Your task to perform on an android device: Go to location settings Image 0: 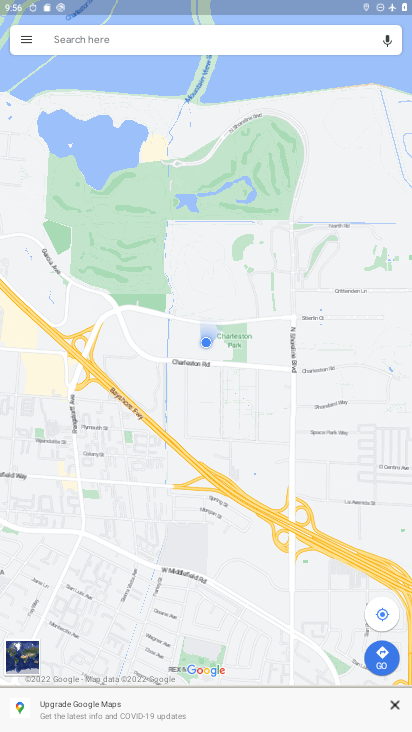
Step 0: press home button
Your task to perform on an android device: Go to location settings Image 1: 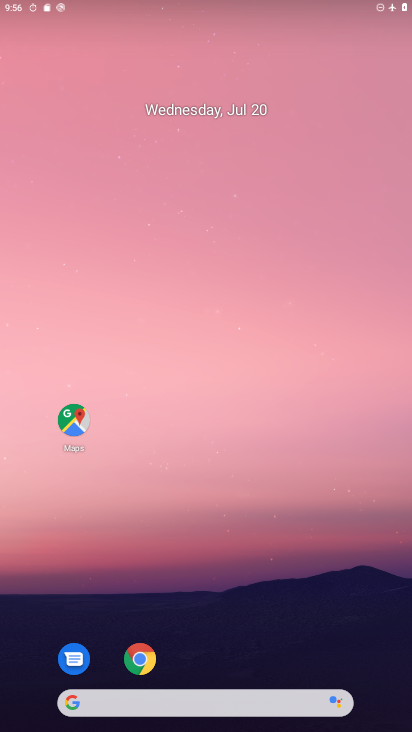
Step 1: drag from (329, 628) to (265, 77)
Your task to perform on an android device: Go to location settings Image 2: 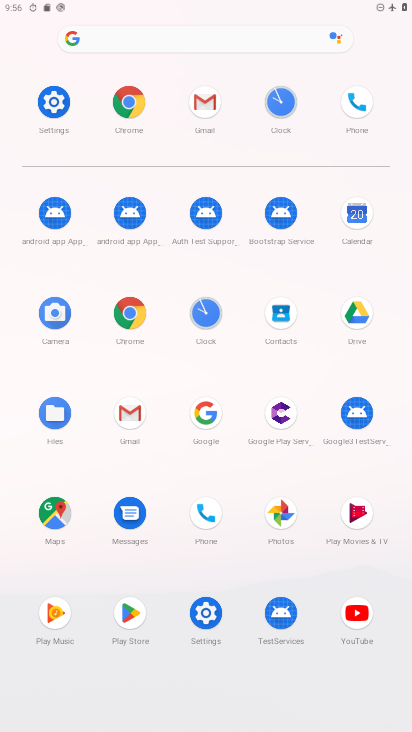
Step 2: click (49, 111)
Your task to perform on an android device: Go to location settings Image 3: 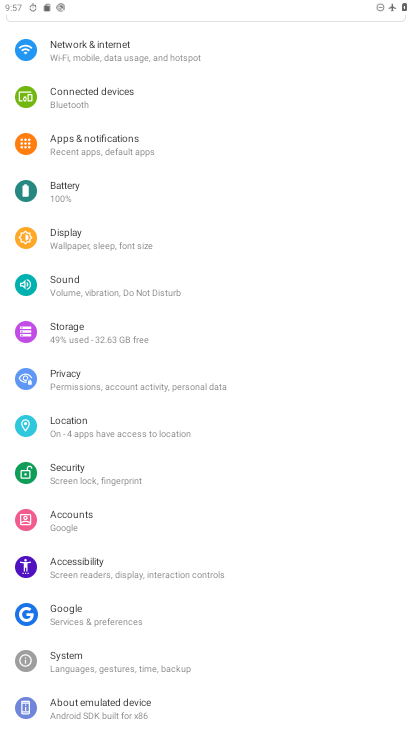
Step 3: click (77, 417)
Your task to perform on an android device: Go to location settings Image 4: 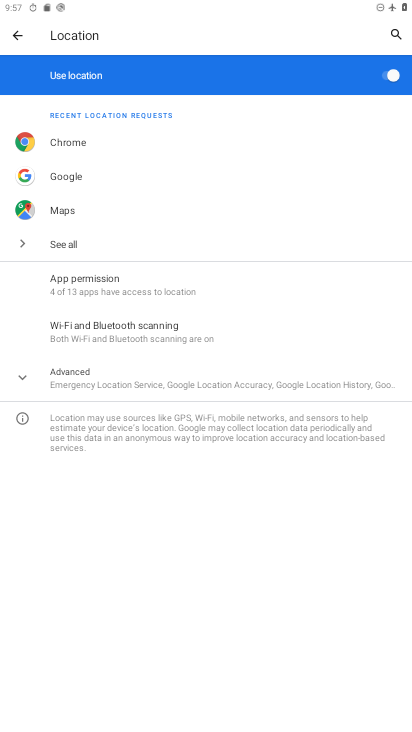
Step 4: task complete